Your task to perform on an android device: Open settings Image 0: 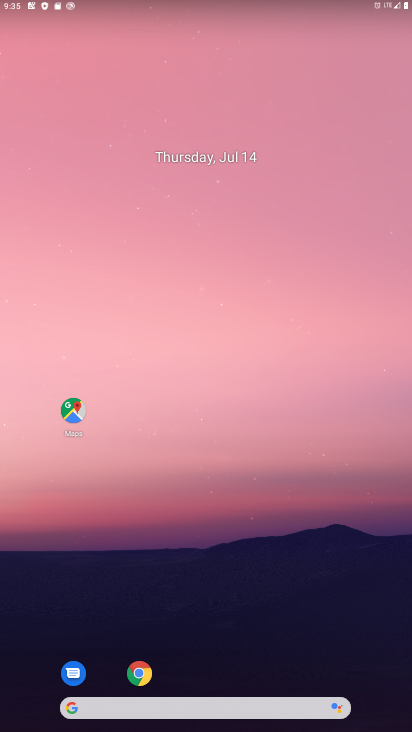
Step 0: drag from (181, 702) to (267, 316)
Your task to perform on an android device: Open settings Image 1: 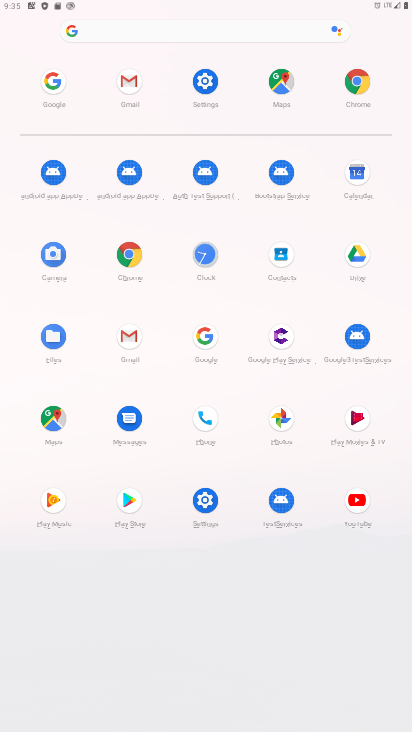
Step 1: click (206, 498)
Your task to perform on an android device: Open settings Image 2: 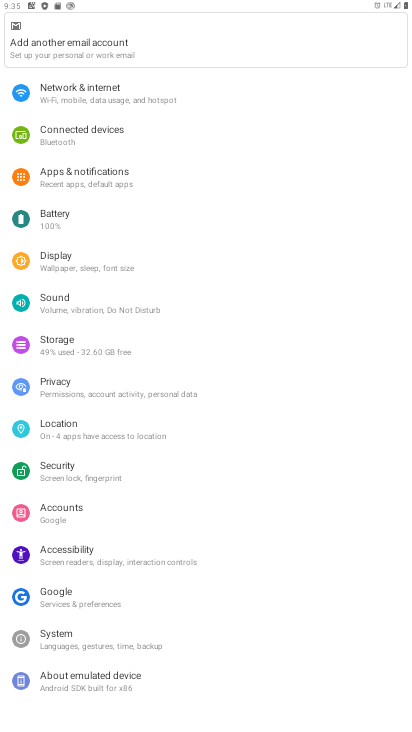
Step 2: task complete